Your task to perform on an android device: Search for "alienware area 51" on bestbuy, select the first entry, add it to the cart, then select checkout. Image 0: 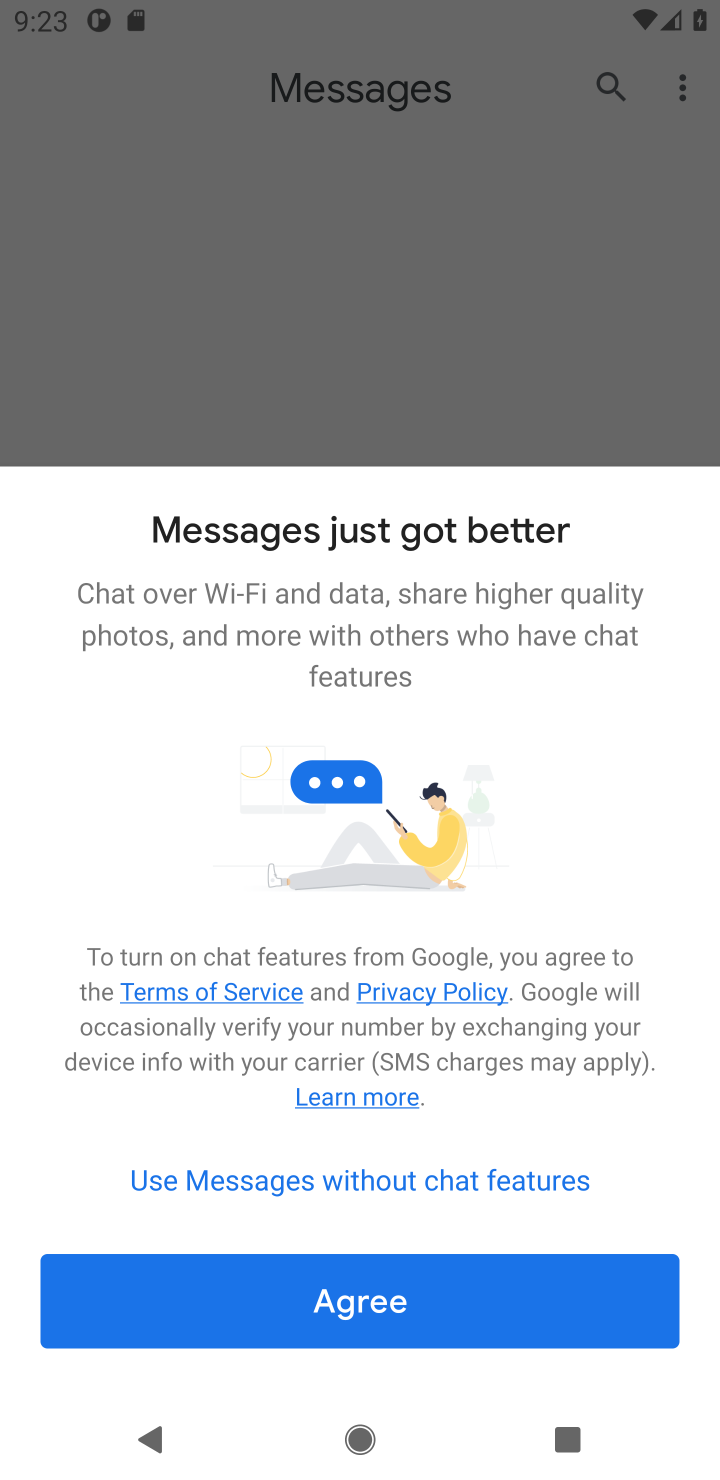
Step 0: press home button
Your task to perform on an android device: Search for "alienware area 51" on bestbuy, select the first entry, add it to the cart, then select checkout. Image 1: 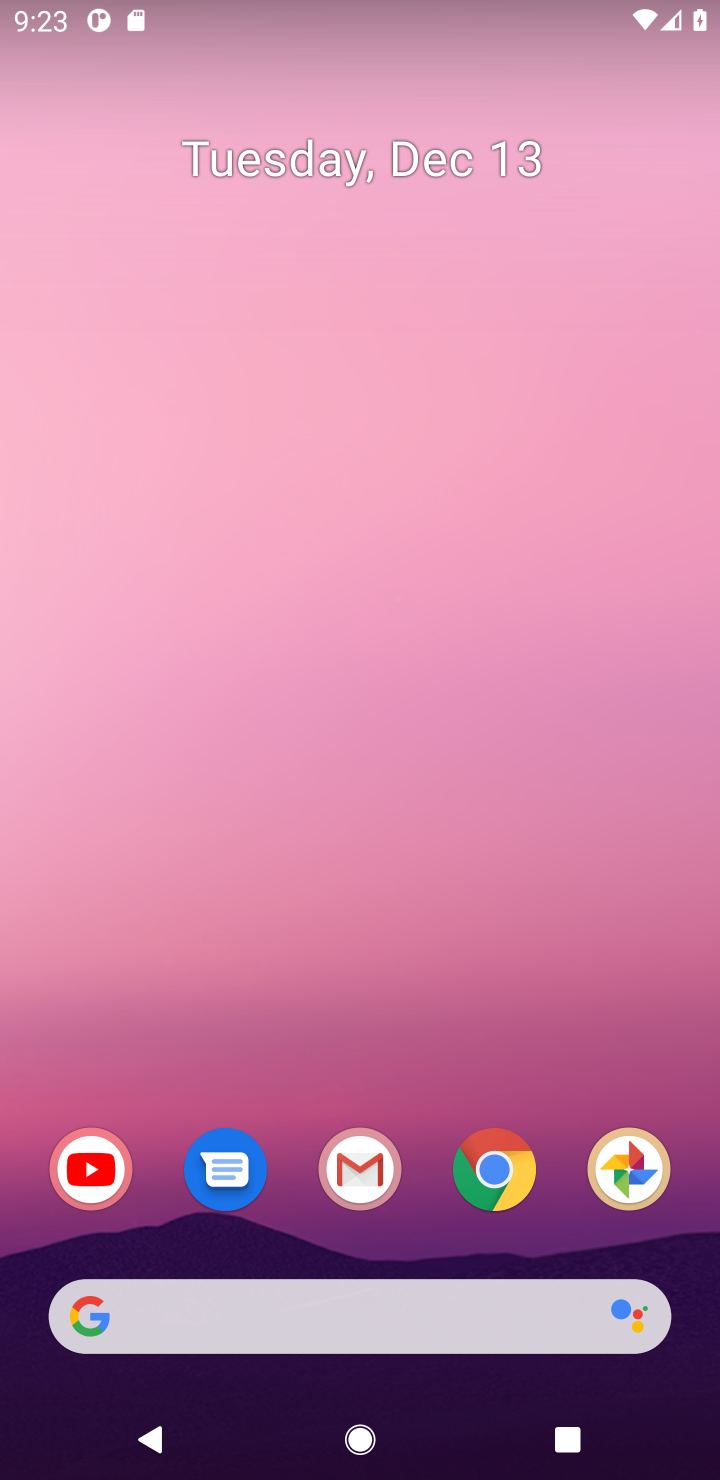
Step 1: click (502, 1176)
Your task to perform on an android device: Search for "alienware area 51" on bestbuy, select the first entry, add it to the cart, then select checkout. Image 2: 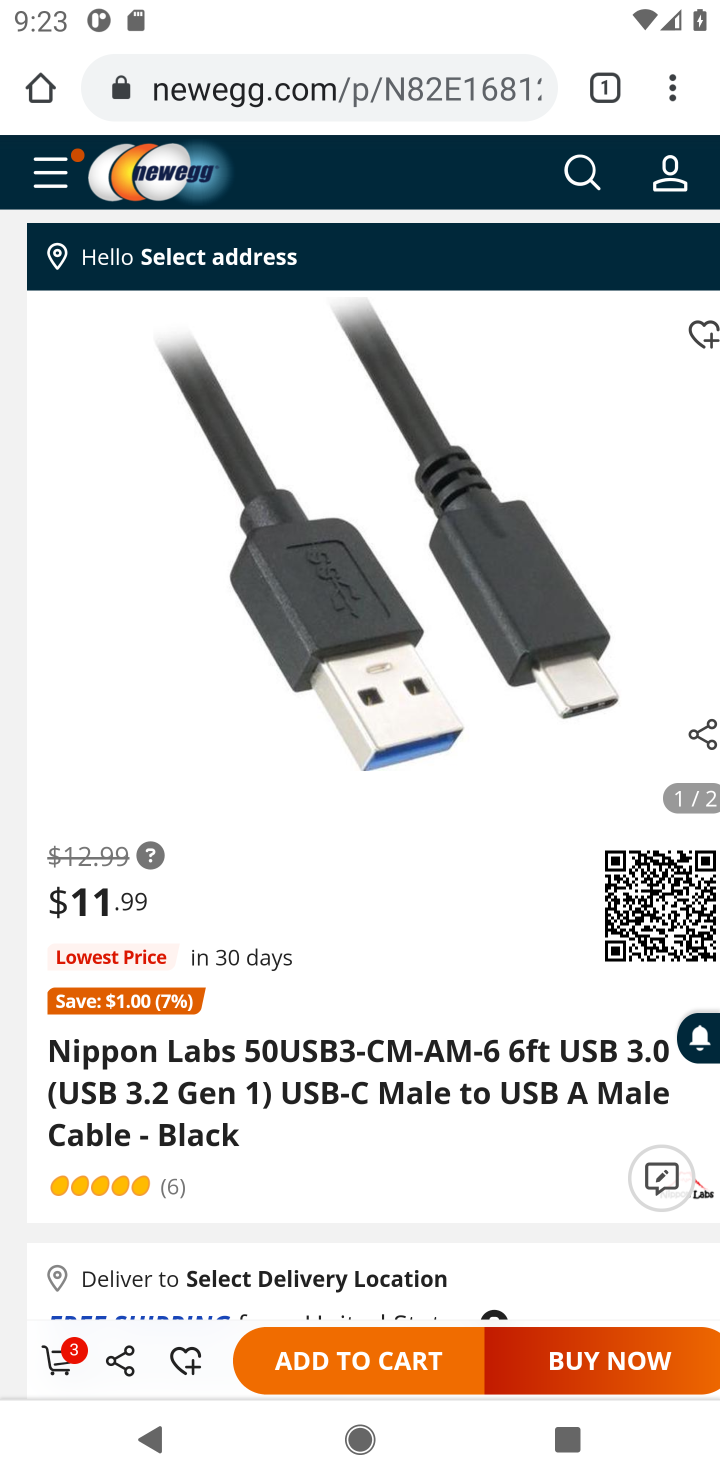
Step 2: click (317, 102)
Your task to perform on an android device: Search for "alienware area 51" on bestbuy, select the first entry, add it to the cart, then select checkout. Image 3: 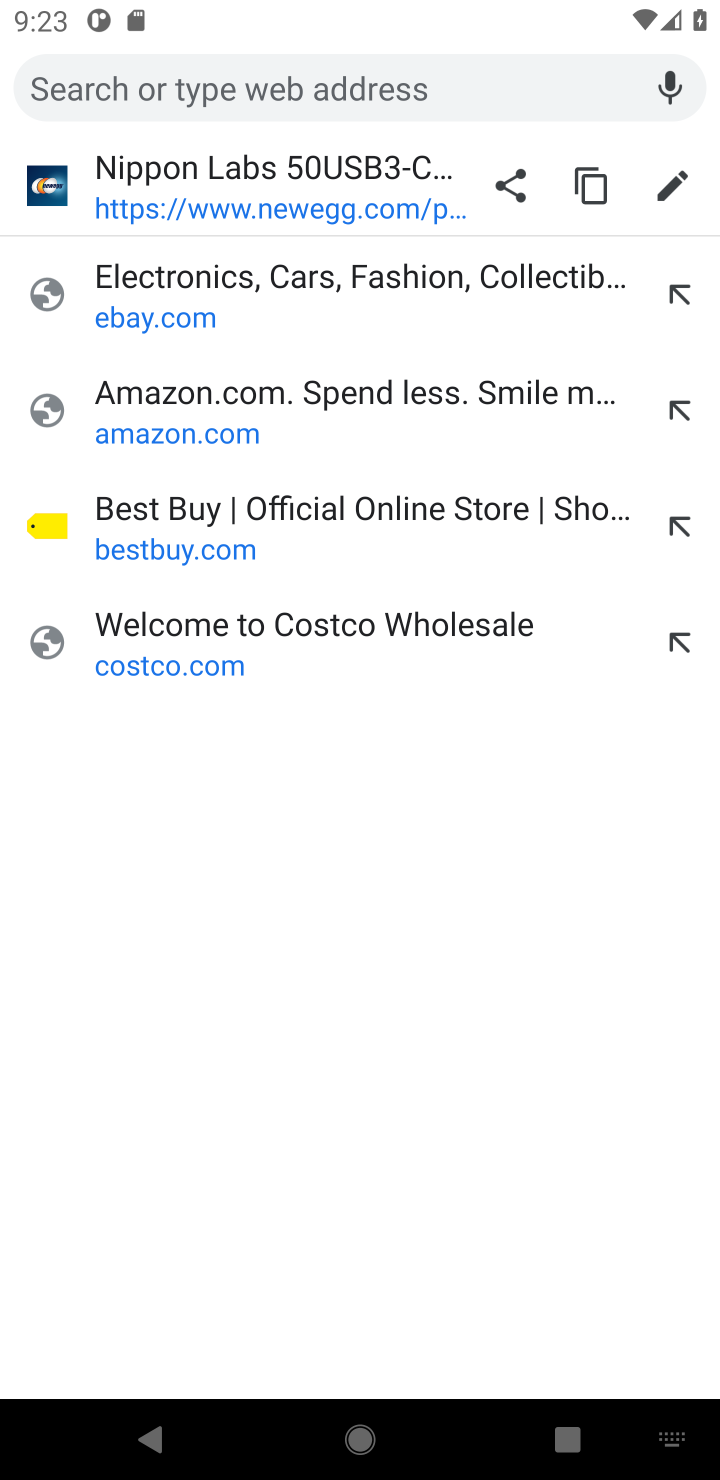
Step 3: type "bestbuy"
Your task to perform on an android device: Search for "alienware area 51" on bestbuy, select the first entry, add it to the cart, then select checkout. Image 4: 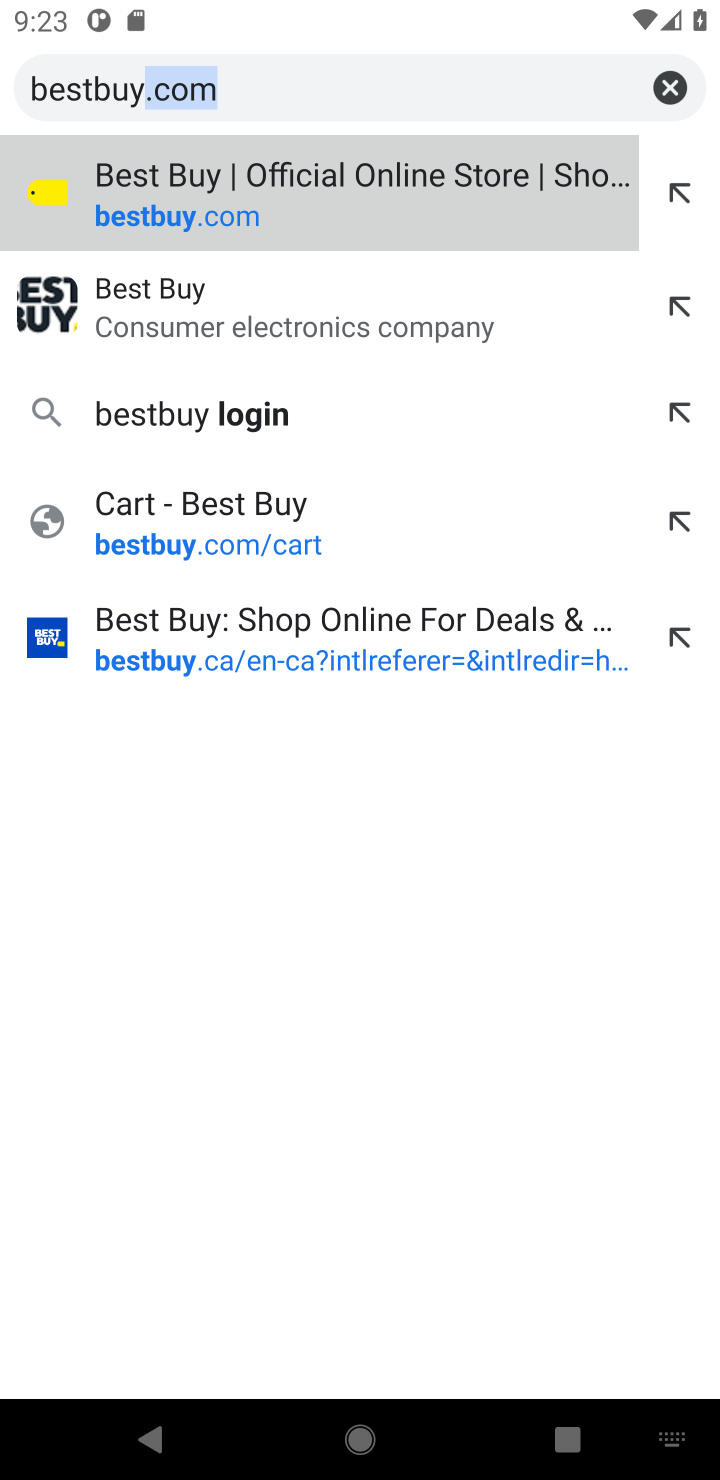
Step 4: click (192, 211)
Your task to perform on an android device: Search for "alienware area 51" on bestbuy, select the first entry, add it to the cart, then select checkout. Image 5: 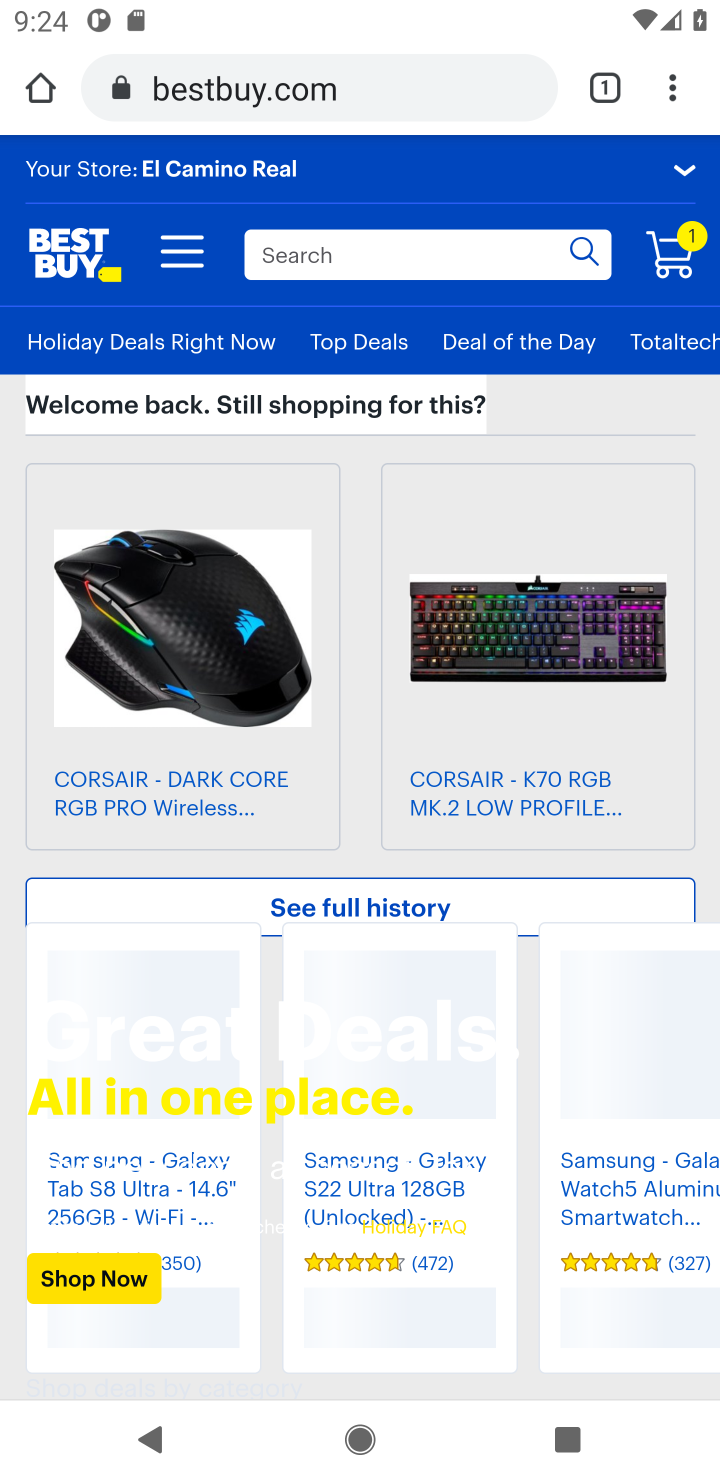
Step 5: task complete